Your task to perform on an android device: turn on location history Image 0: 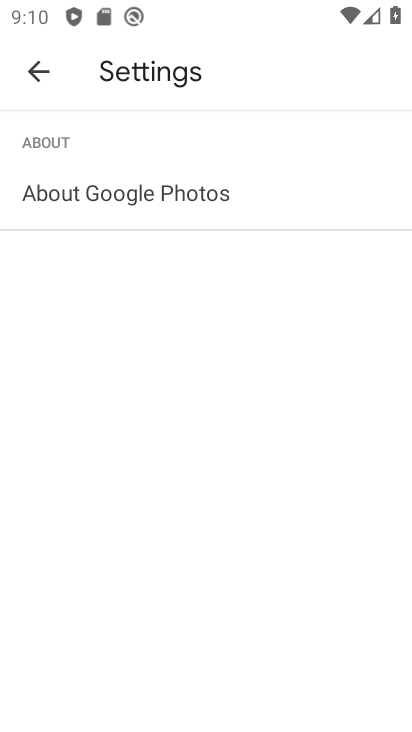
Step 0: press home button
Your task to perform on an android device: turn on location history Image 1: 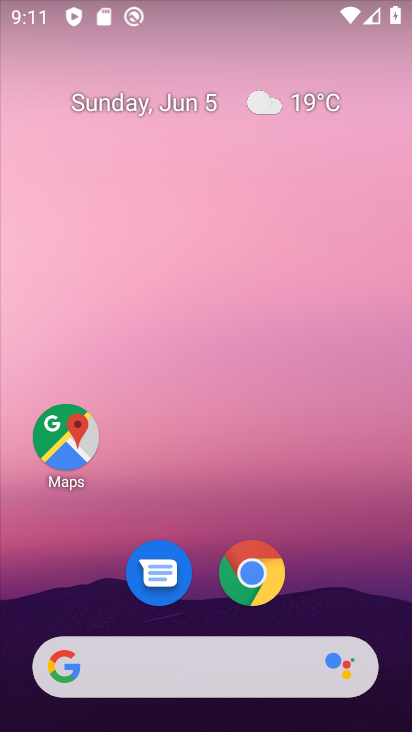
Step 1: drag from (207, 731) to (213, 0)
Your task to perform on an android device: turn on location history Image 2: 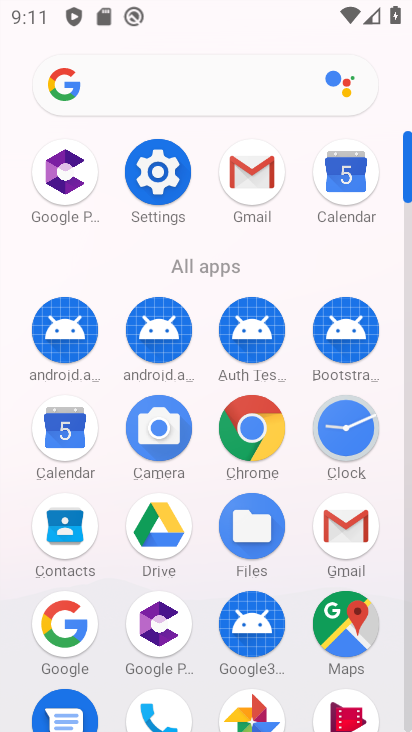
Step 2: click (158, 163)
Your task to perform on an android device: turn on location history Image 3: 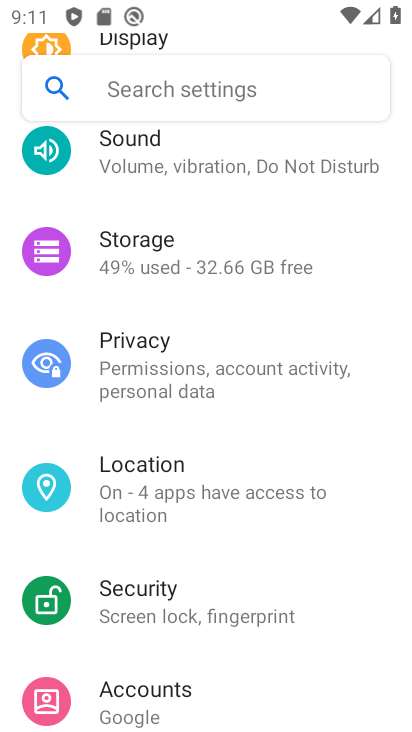
Step 3: click (164, 461)
Your task to perform on an android device: turn on location history Image 4: 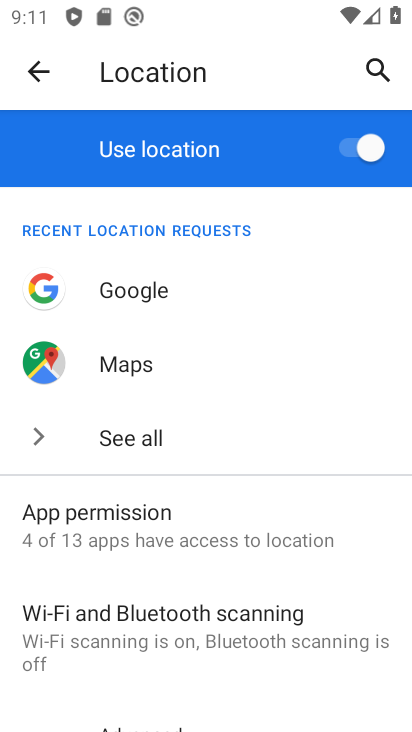
Step 4: drag from (189, 709) to (190, 300)
Your task to perform on an android device: turn on location history Image 5: 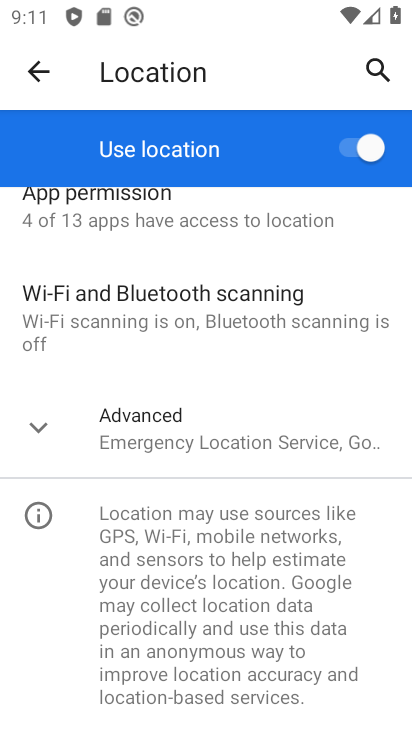
Step 5: click (137, 443)
Your task to perform on an android device: turn on location history Image 6: 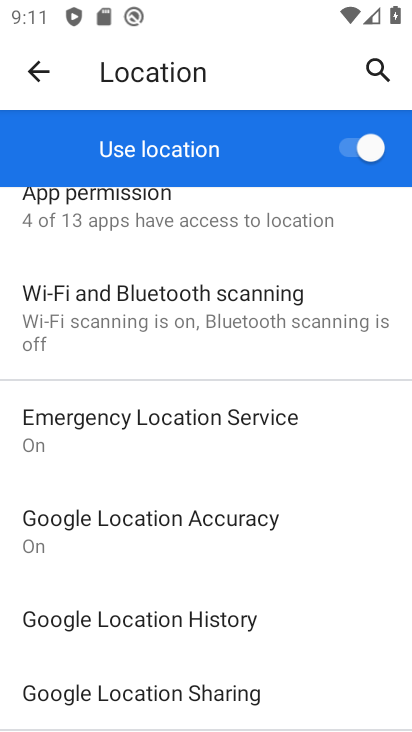
Step 6: click (192, 621)
Your task to perform on an android device: turn on location history Image 7: 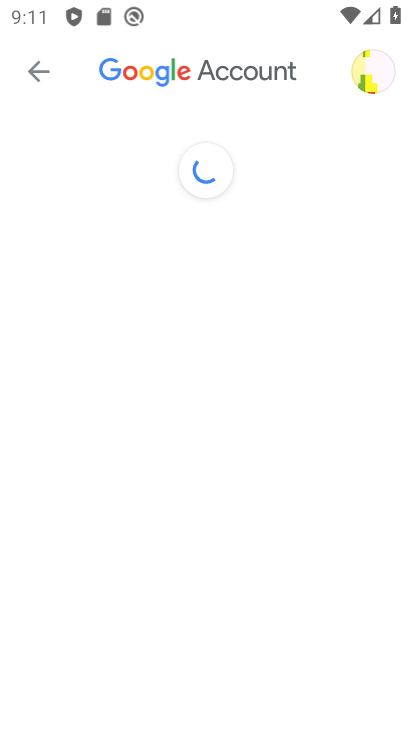
Step 7: task complete